Your task to perform on an android device: see sites visited before in the chrome app Image 0: 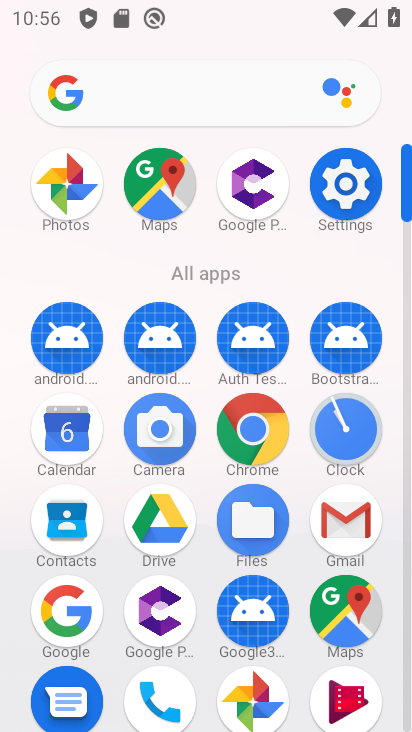
Step 0: click (266, 433)
Your task to perform on an android device: see sites visited before in the chrome app Image 1: 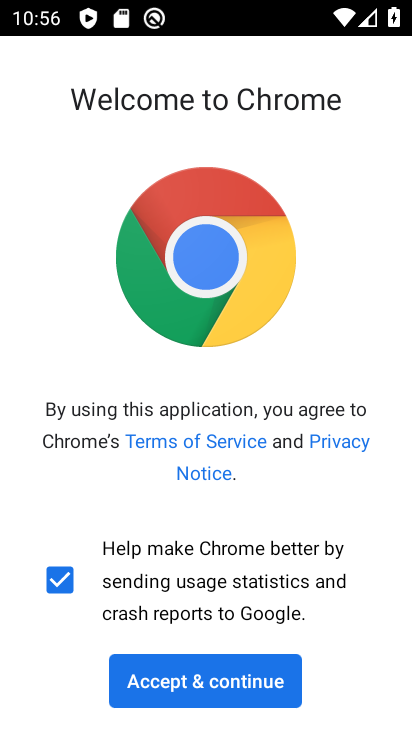
Step 1: click (255, 676)
Your task to perform on an android device: see sites visited before in the chrome app Image 2: 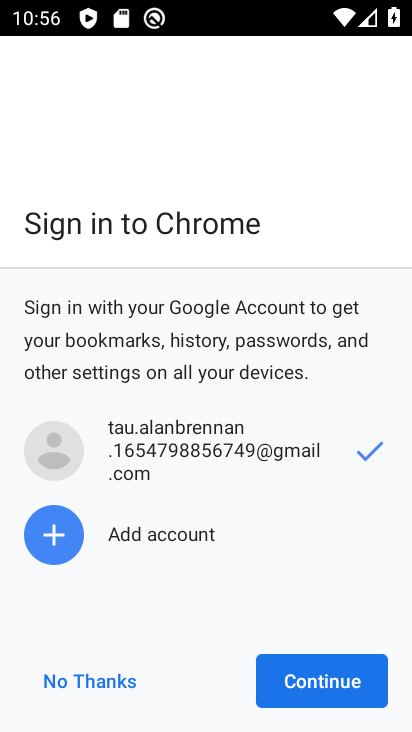
Step 2: click (303, 684)
Your task to perform on an android device: see sites visited before in the chrome app Image 3: 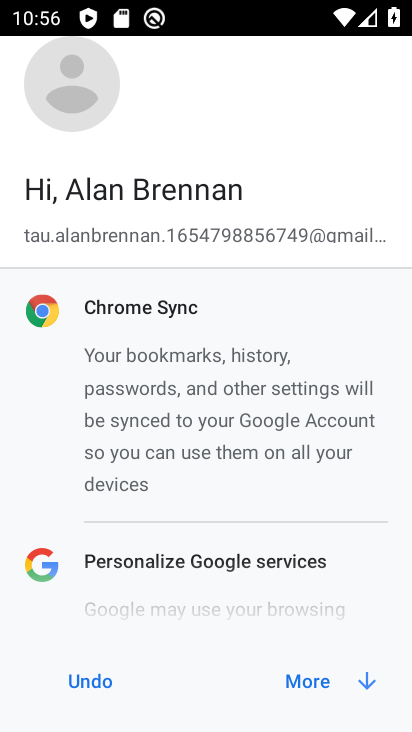
Step 3: click (308, 673)
Your task to perform on an android device: see sites visited before in the chrome app Image 4: 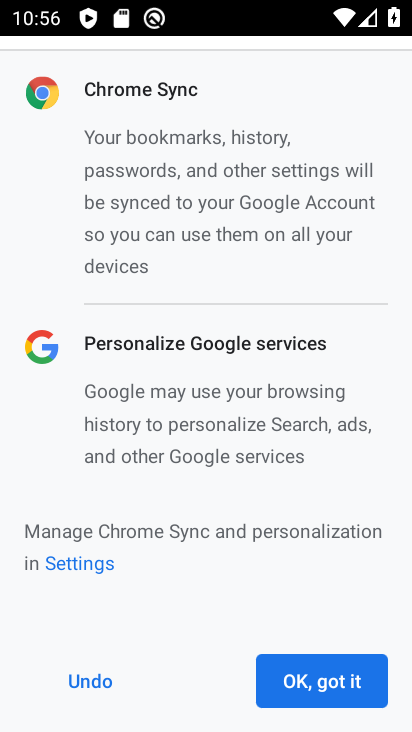
Step 4: click (318, 679)
Your task to perform on an android device: see sites visited before in the chrome app Image 5: 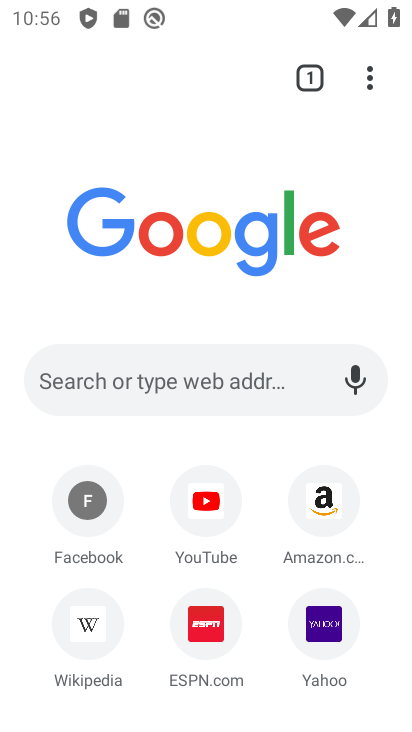
Step 5: click (367, 90)
Your task to perform on an android device: see sites visited before in the chrome app Image 6: 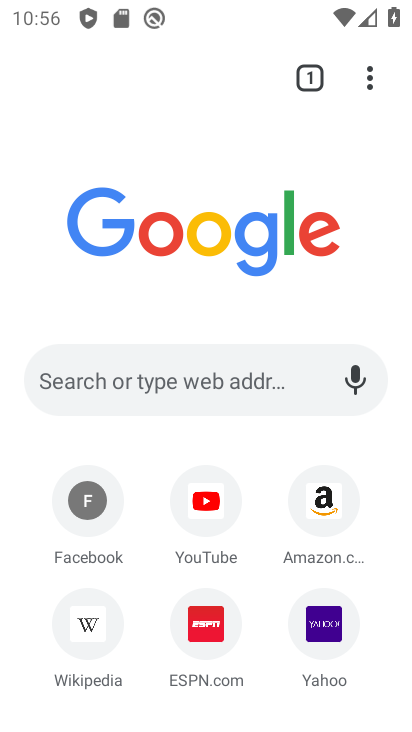
Step 6: click (375, 76)
Your task to perform on an android device: see sites visited before in the chrome app Image 7: 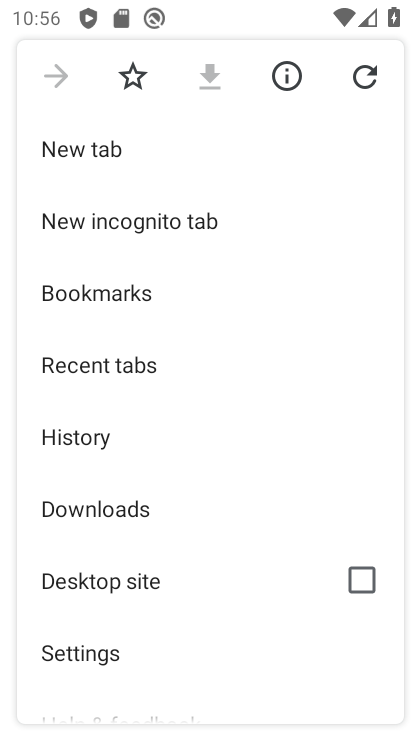
Step 7: click (140, 360)
Your task to perform on an android device: see sites visited before in the chrome app Image 8: 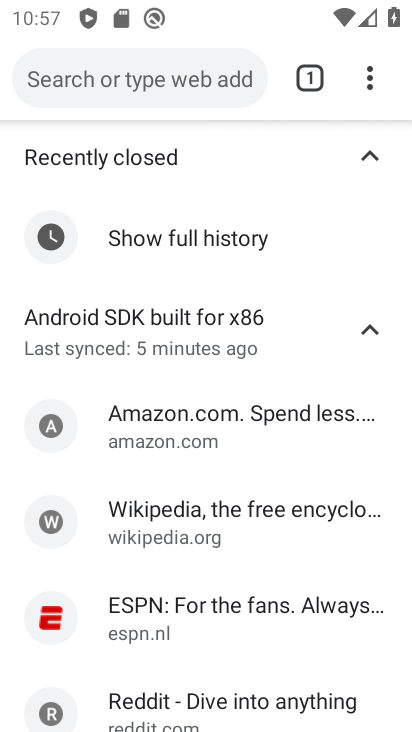
Step 8: task complete